Your task to perform on an android device: Go to sound settings Image 0: 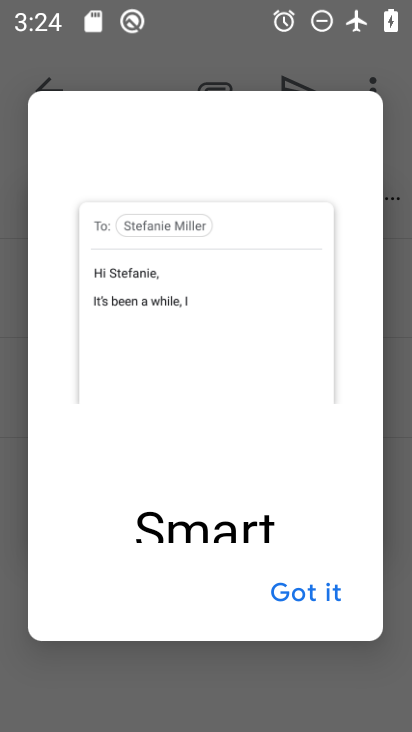
Step 0: press home button
Your task to perform on an android device: Go to sound settings Image 1: 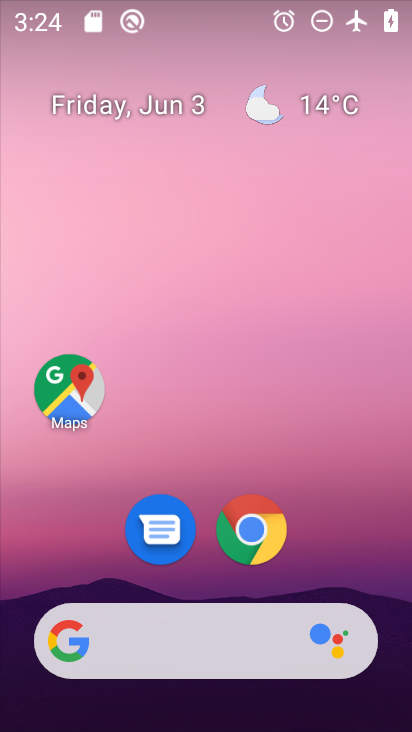
Step 1: drag from (337, 533) to (330, 186)
Your task to perform on an android device: Go to sound settings Image 2: 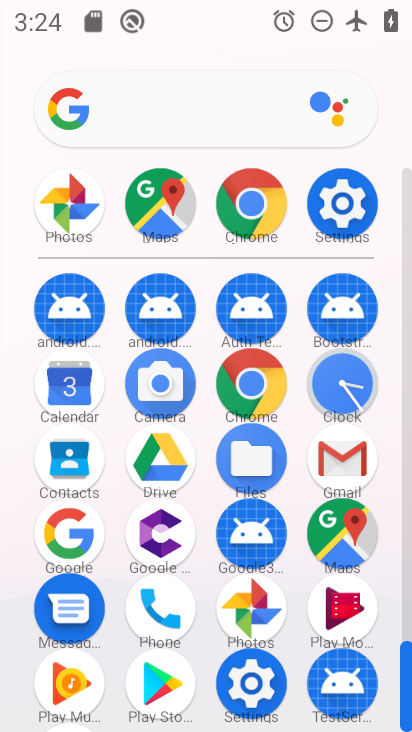
Step 2: click (356, 211)
Your task to perform on an android device: Go to sound settings Image 3: 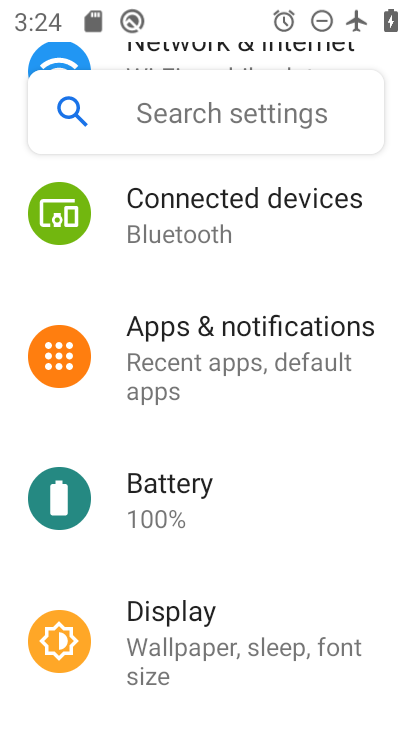
Step 3: drag from (365, 273) to (344, 459)
Your task to perform on an android device: Go to sound settings Image 4: 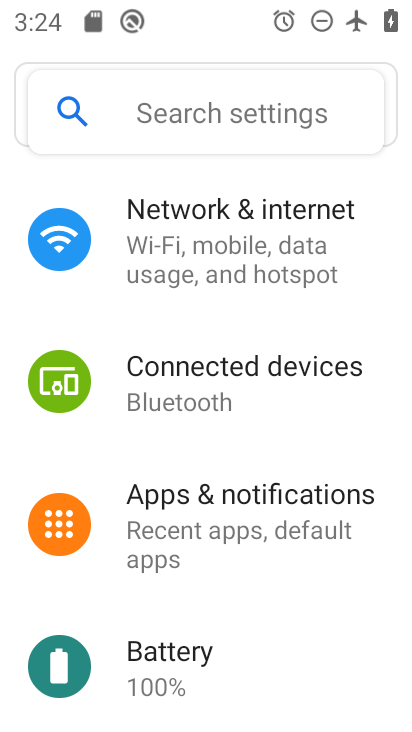
Step 4: drag from (368, 273) to (370, 440)
Your task to perform on an android device: Go to sound settings Image 5: 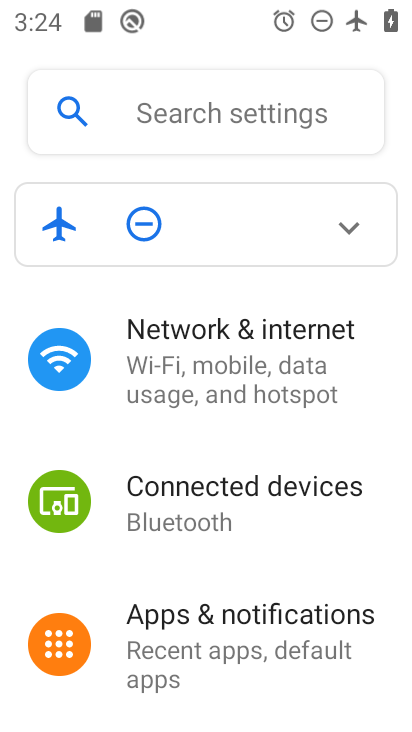
Step 5: drag from (332, 454) to (336, 293)
Your task to perform on an android device: Go to sound settings Image 6: 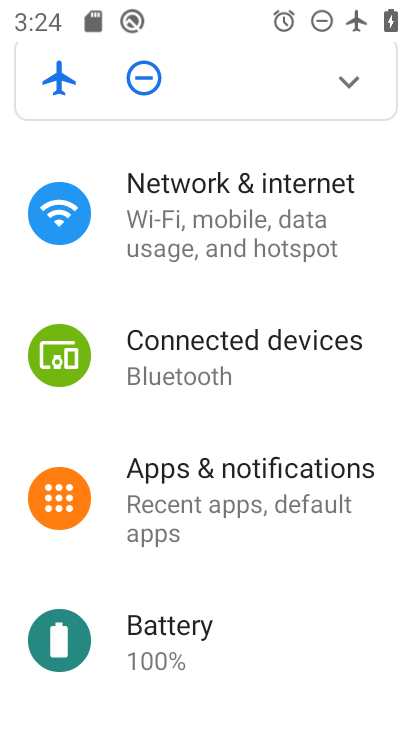
Step 6: drag from (327, 522) to (329, 381)
Your task to perform on an android device: Go to sound settings Image 7: 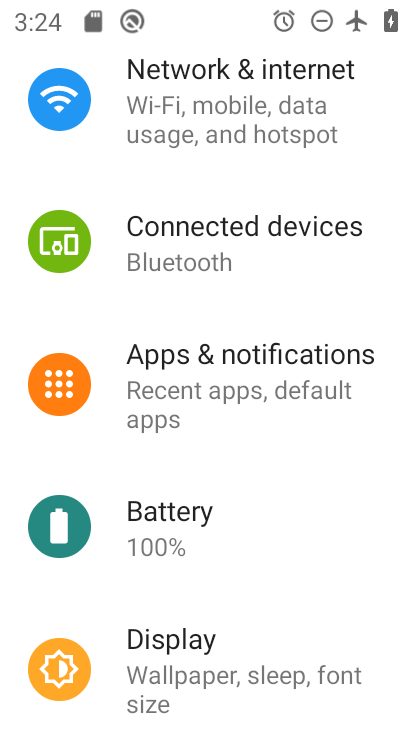
Step 7: drag from (338, 522) to (341, 392)
Your task to perform on an android device: Go to sound settings Image 8: 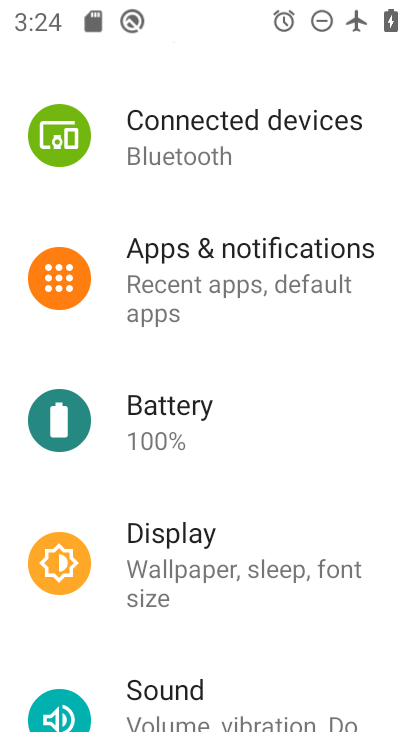
Step 8: drag from (310, 609) to (302, 396)
Your task to perform on an android device: Go to sound settings Image 9: 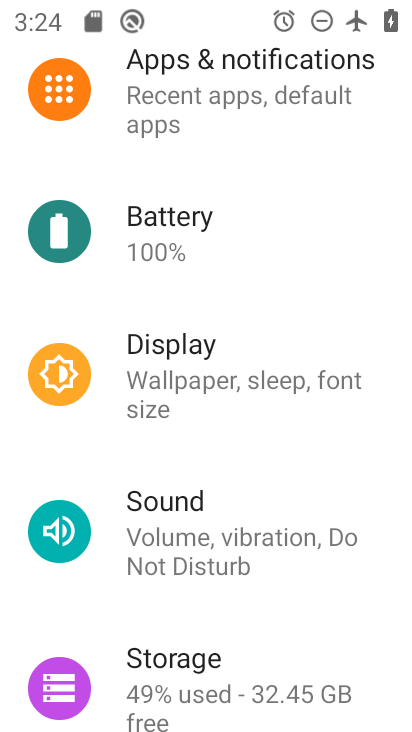
Step 9: drag from (299, 589) to (303, 422)
Your task to perform on an android device: Go to sound settings Image 10: 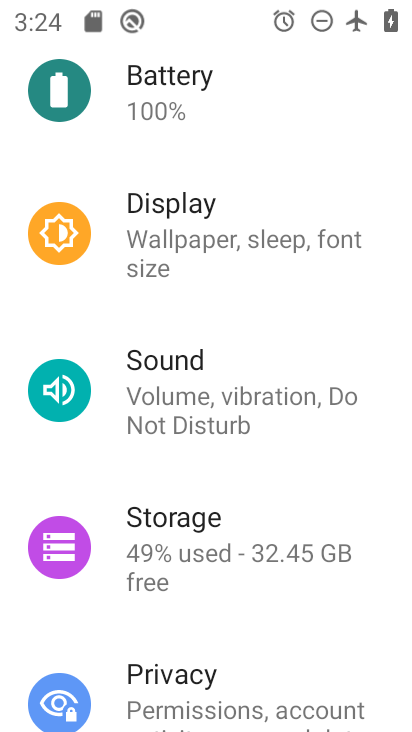
Step 10: click (261, 400)
Your task to perform on an android device: Go to sound settings Image 11: 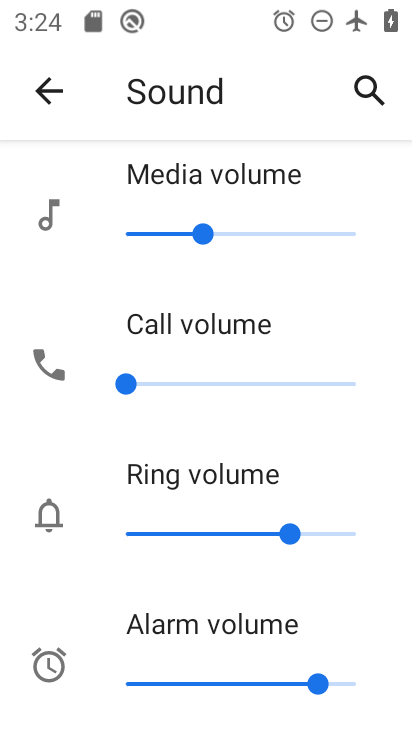
Step 11: task complete